Your task to perform on an android device: turn on the 12-hour format for clock Image 0: 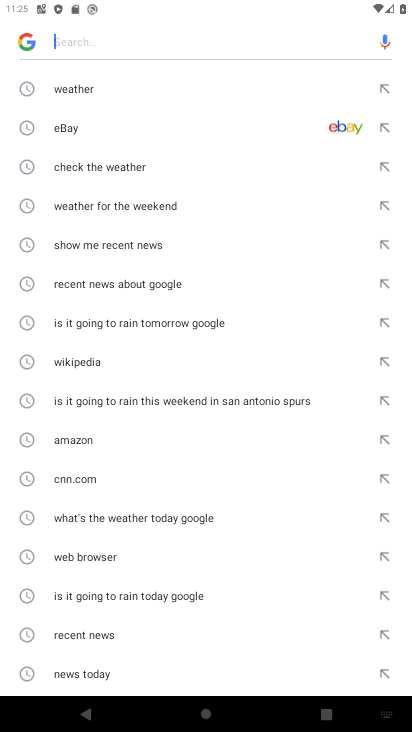
Step 0: press home button
Your task to perform on an android device: turn on the 12-hour format for clock Image 1: 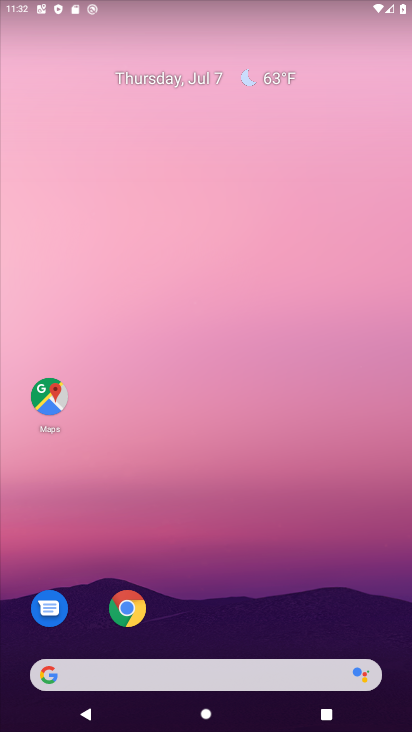
Step 1: drag from (11, 728) to (284, 131)
Your task to perform on an android device: turn on the 12-hour format for clock Image 2: 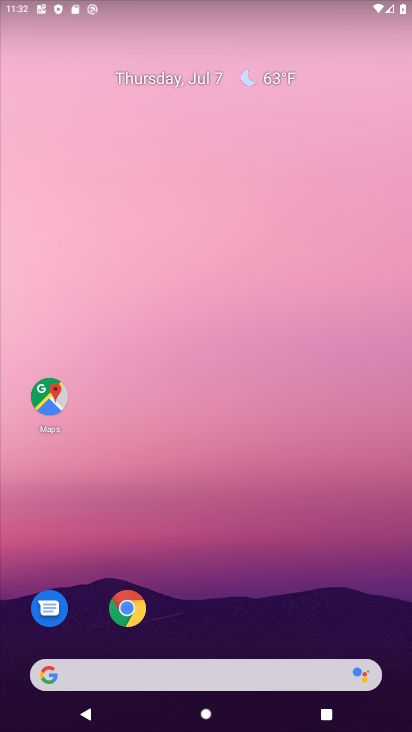
Step 2: drag from (25, 716) to (287, 121)
Your task to perform on an android device: turn on the 12-hour format for clock Image 3: 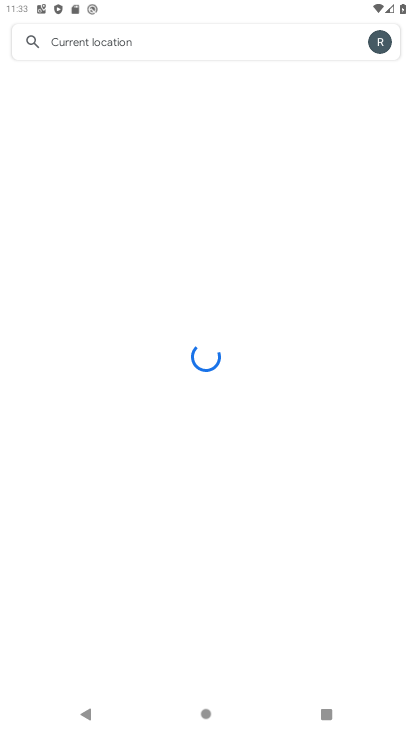
Step 3: press home button
Your task to perform on an android device: turn on the 12-hour format for clock Image 4: 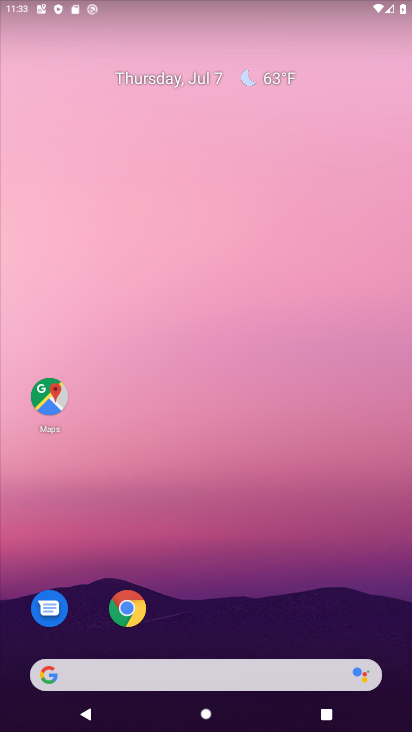
Step 4: drag from (32, 648) to (320, 2)
Your task to perform on an android device: turn on the 12-hour format for clock Image 5: 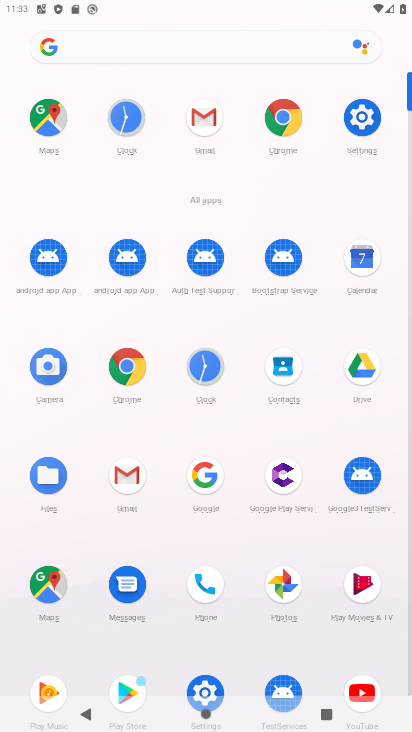
Step 5: click (211, 363)
Your task to perform on an android device: turn on the 12-hour format for clock Image 6: 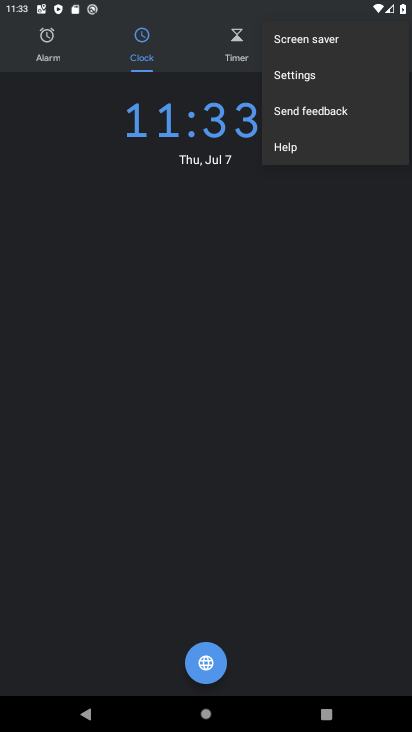
Step 6: click (349, 68)
Your task to perform on an android device: turn on the 12-hour format for clock Image 7: 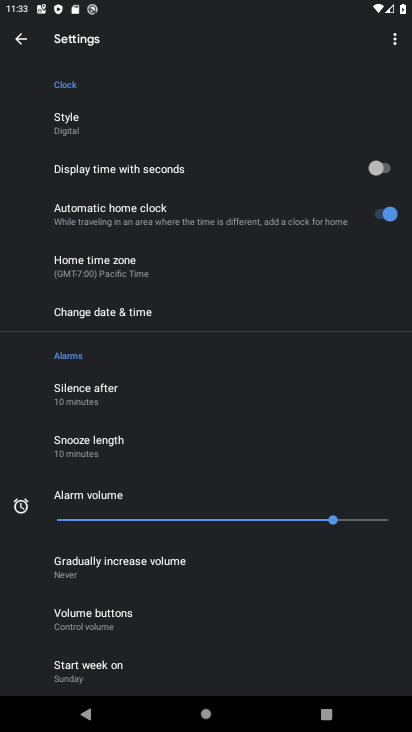
Step 7: click (150, 296)
Your task to perform on an android device: turn on the 12-hour format for clock Image 8: 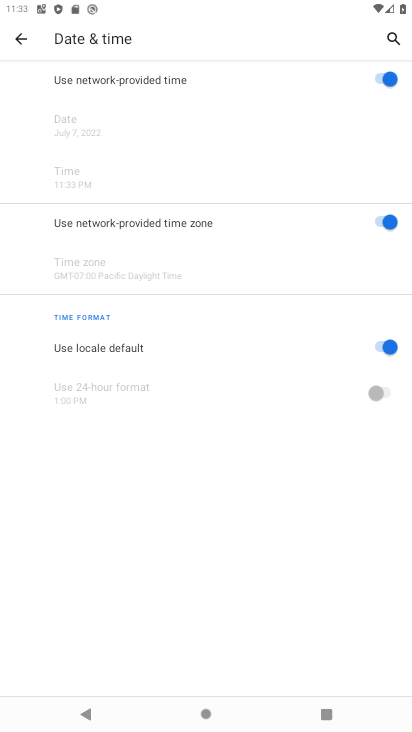
Step 8: click (392, 347)
Your task to perform on an android device: turn on the 12-hour format for clock Image 9: 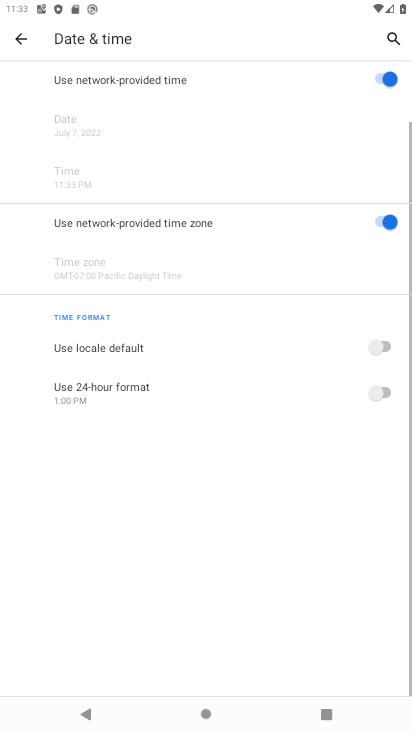
Step 9: task complete